Your task to perform on an android device: turn off javascript in the chrome app Image 0: 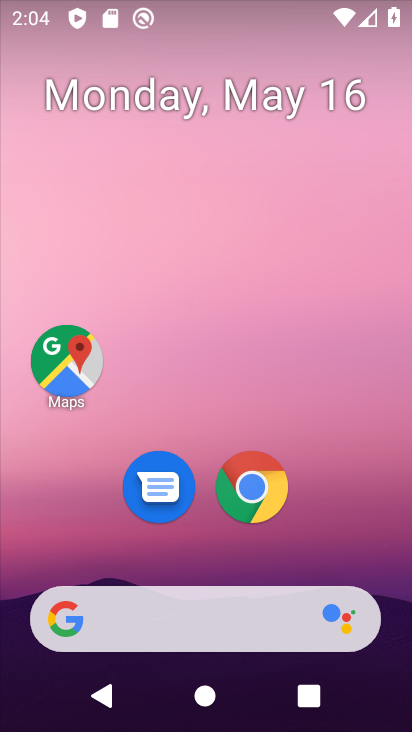
Step 0: click (254, 487)
Your task to perform on an android device: turn off javascript in the chrome app Image 1: 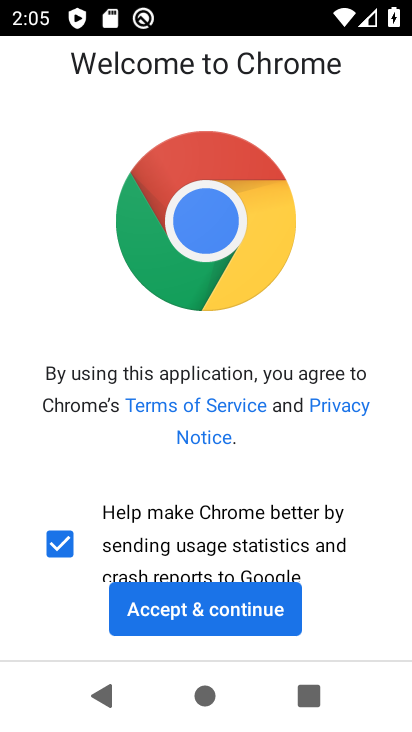
Step 1: click (206, 609)
Your task to perform on an android device: turn off javascript in the chrome app Image 2: 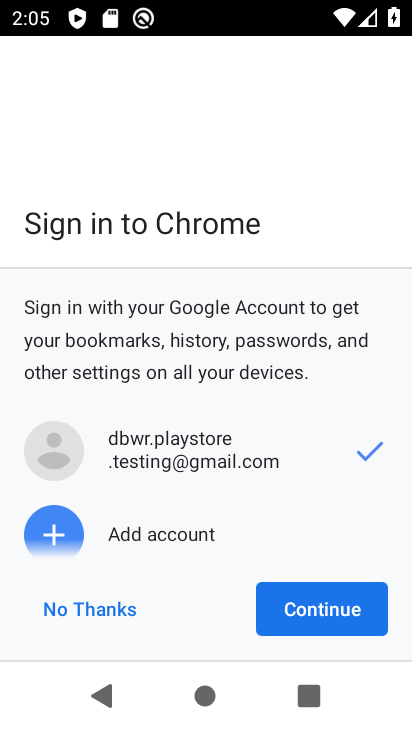
Step 2: click (313, 603)
Your task to perform on an android device: turn off javascript in the chrome app Image 3: 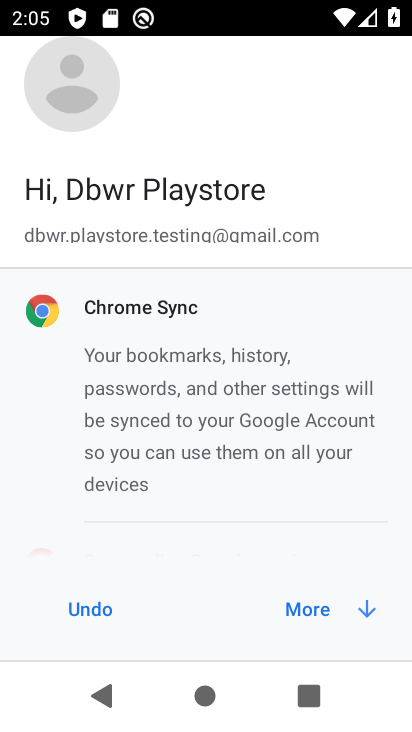
Step 3: click (313, 602)
Your task to perform on an android device: turn off javascript in the chrome app Image 4: 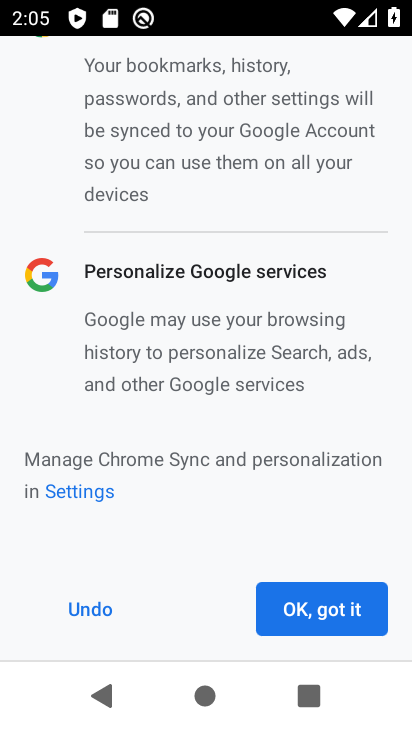
Step 4: click (313, 602)
Your task to perform on an android device: turn off javascript in the chrome app Image 5: 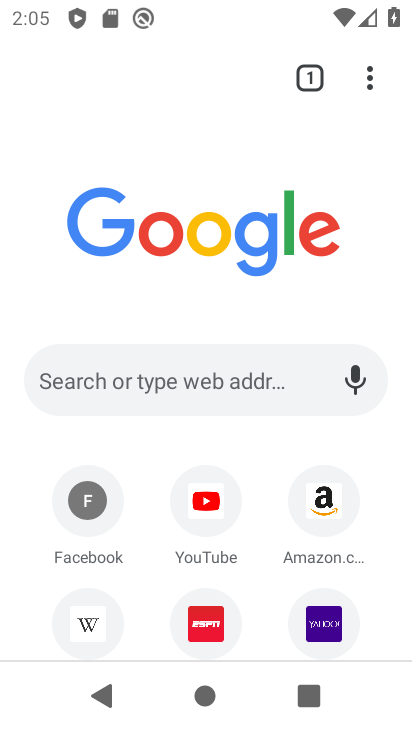
Step 5: click (369, 74)
Your task to perform on an android device: turn off javascript in the chrome app Image 6: 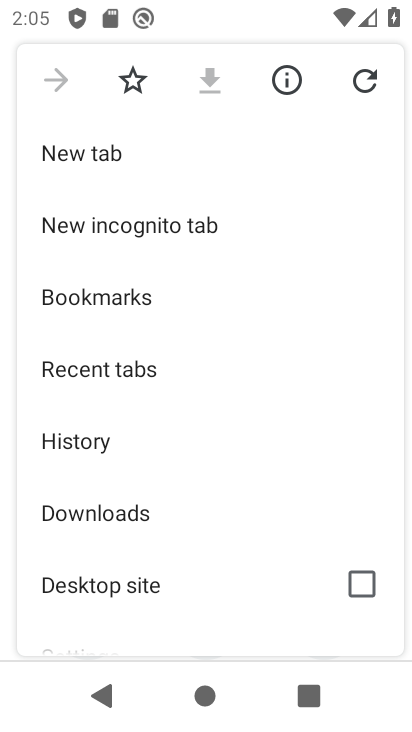
Step 6: drag from (172, 470) to (185, 370)
Your task to perform on an android device: turn off javascript in the chrome app Image 7: 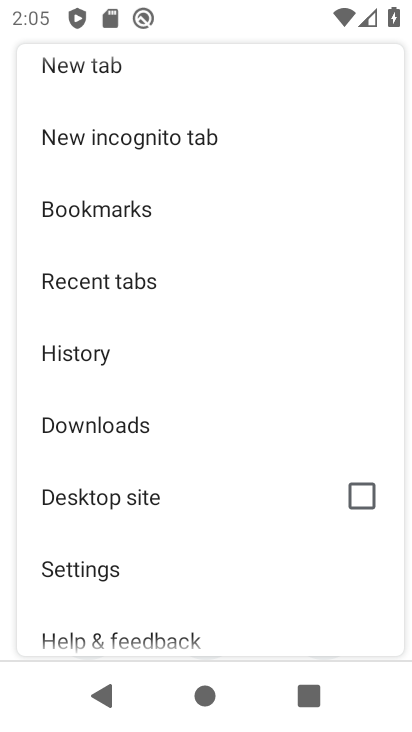
Step 7: click (81, 574)
Your task to perform on an android device: turn off javascript in the chrome app Image 8: 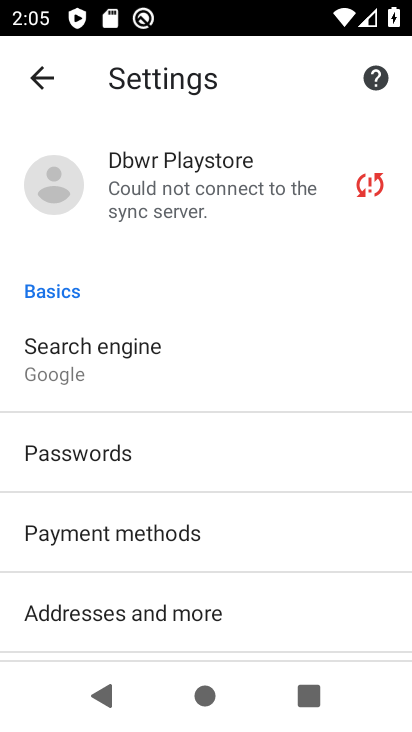
Step 8: drag from (81, 575) to (148, 484)
Your task to perform on an android device: turn off javascript in the chrome app Image 9: 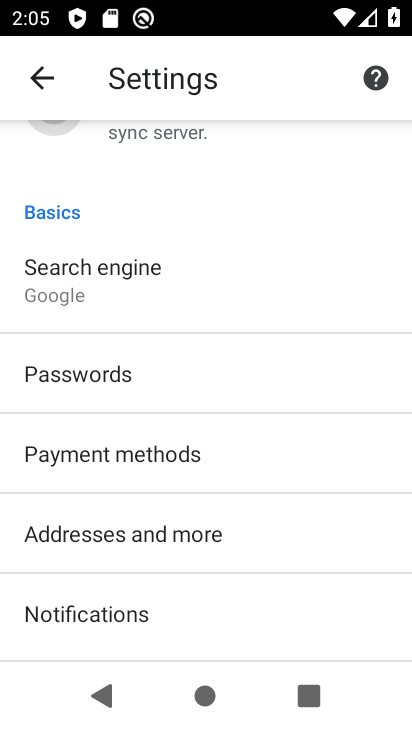
Step 9: drag from (157, 575) to (212, 452)
Your task to perform on an android device: turn off javascript in the chrome app Image 10: 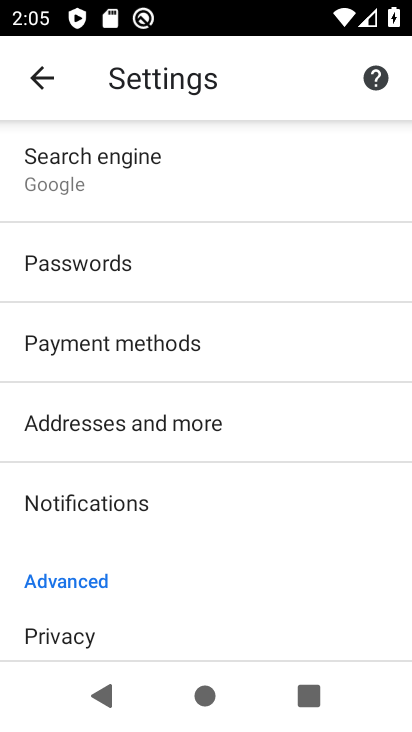
Step 10: drag from (148, 540) to (215, 463)
Your task to perform on an android device: turn off javascript in the chrome app Image 11: 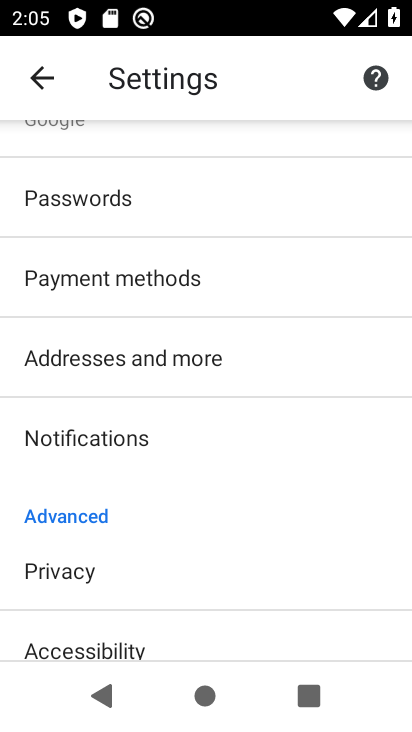
Step 11: drag from (110, 616) to (199, 489)
Your task to perform on an android device: turn off javascript in the chrome app Image 12: 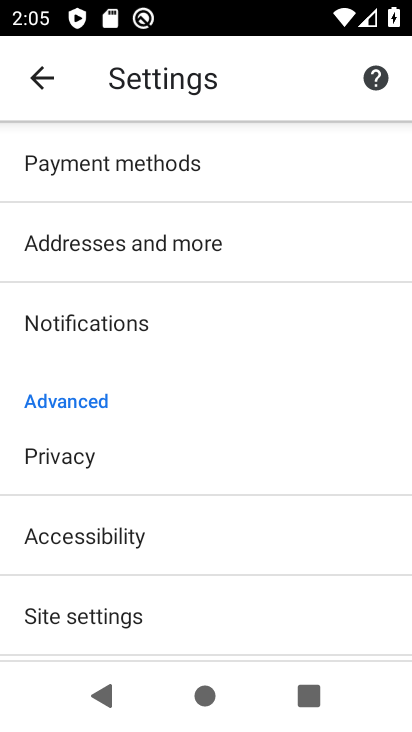
Step 12: drag from (117, 577) to (202, 484)
Your task to perform on an android device: turn off javascript in the chrome app Image 13: 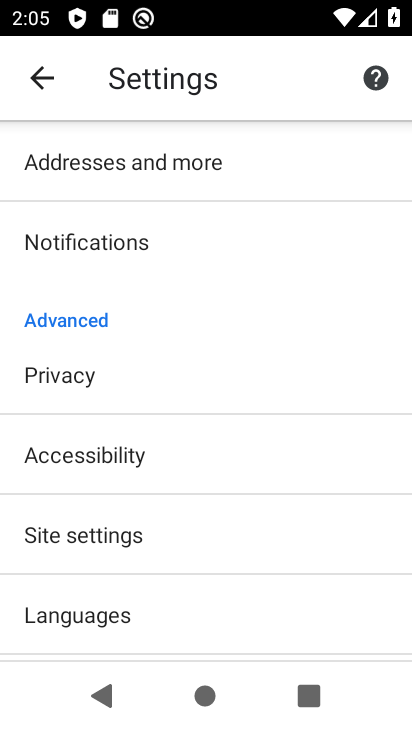
Step 13: drag from (125, 579) to (225, 468)
Your task to perform on an android device: turn off javascript in the chrome app Image 14: 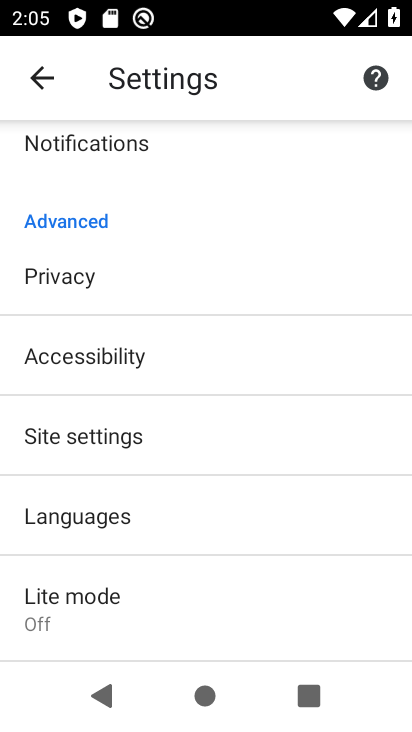
Step 14: click (93, 446)
Your task to perform on an android device: turn off javascript in the chrome app Image 15: 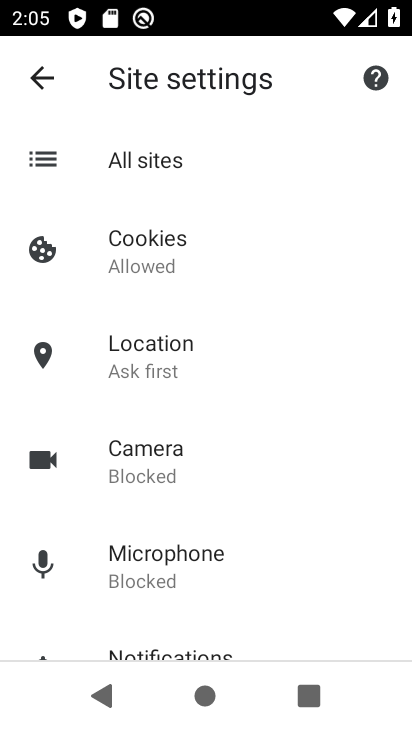
Step 15: drag from (166, 527) to (208, 465)
Your task to perform on an android device: turn off javascript in the chrome app Image 16: 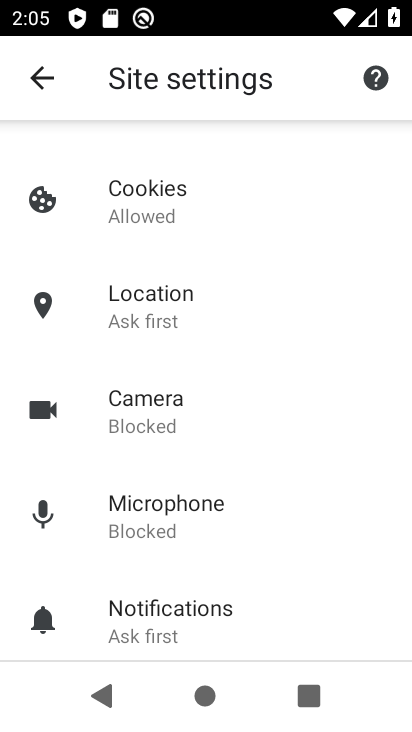
Step 16: drag from (138, 568) to (213, 480)
Your task to perform on an android device: turn off javascript in the chrome app Image 17: 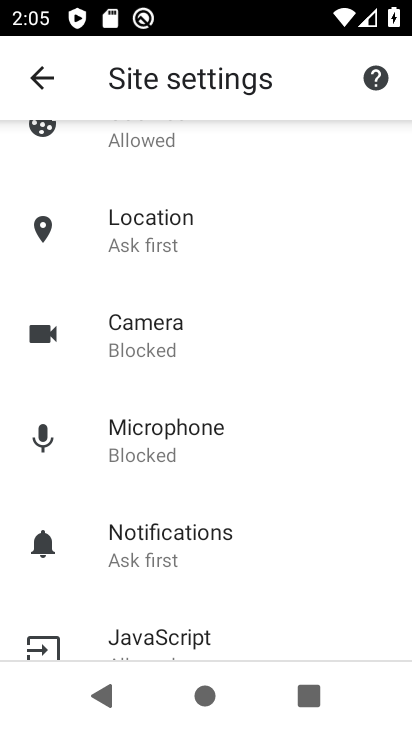
Step 17: drag from (139, 588) to (229, 483)
Your task to perform on an android device: turn off javascript in the chrome app Image 18: 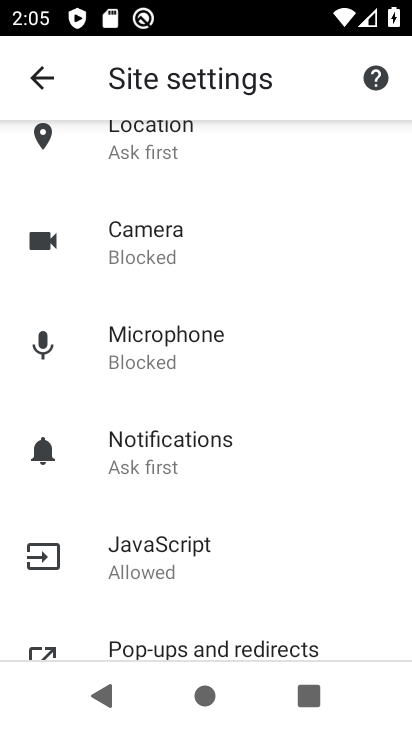
Step 18: click (184, 547)
Your task to perform on an android device: turn off javascript in the chrome app Image 19: 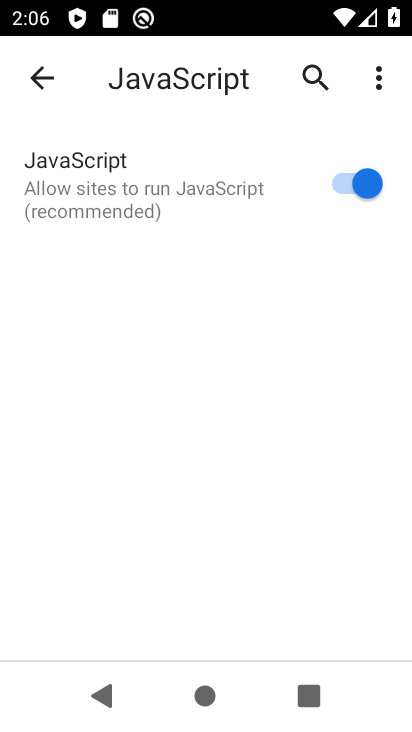
Step 19: click (352, 188)
Your task to perform on an android device: turn off javascript in the chrome app Image 20: 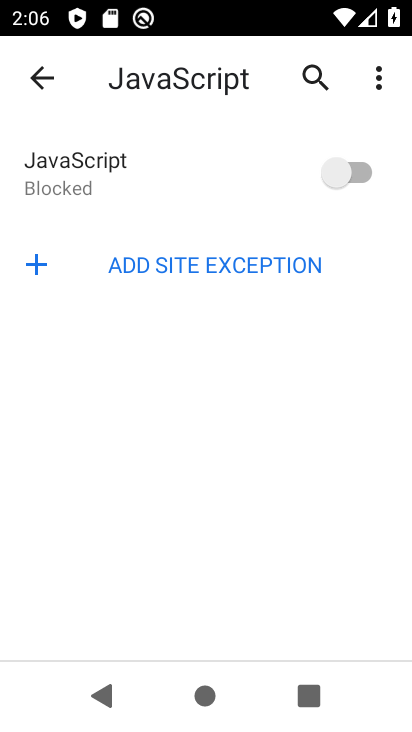
Step 20: task complete